Your task to perform on an android device: toggle javascript in the chrome app Image 0: 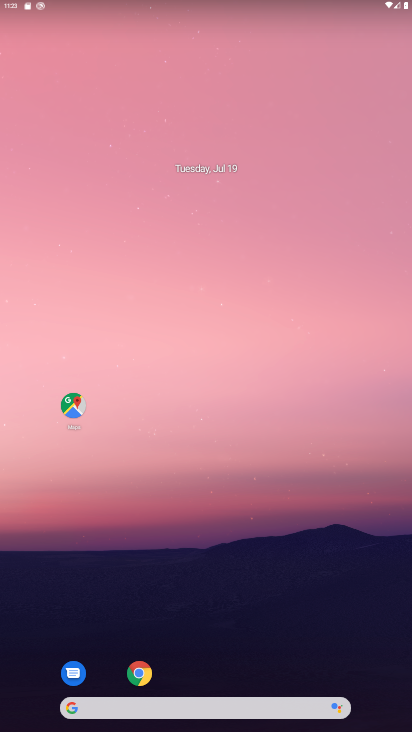
Step 0: click (142, 668)
Your task to perform on an android device: toggle javascript in the chrome app Image 1: 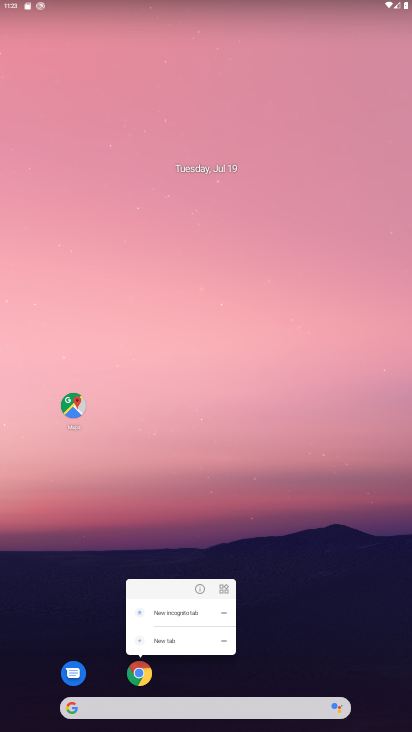
Step 1: click (141, 673)
Your task to perform on an android device: toggle javascript in the chrome app Image 2: 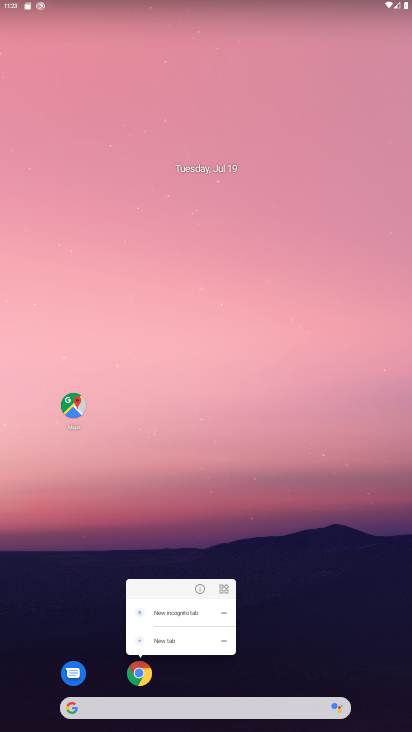
Step 2: click (141, 673)
Your task to perform on an android device: toggle javascript in the chrome app Image 3: 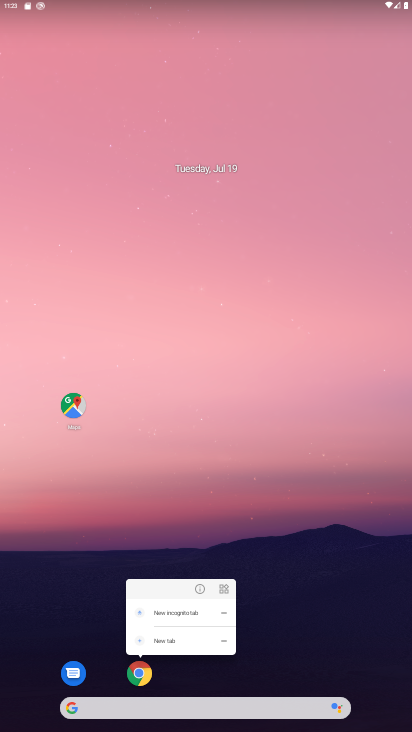
Step 3: click (140, 673)
Your task to perform on an android device: toggle javascript in the chrome app Image 4: 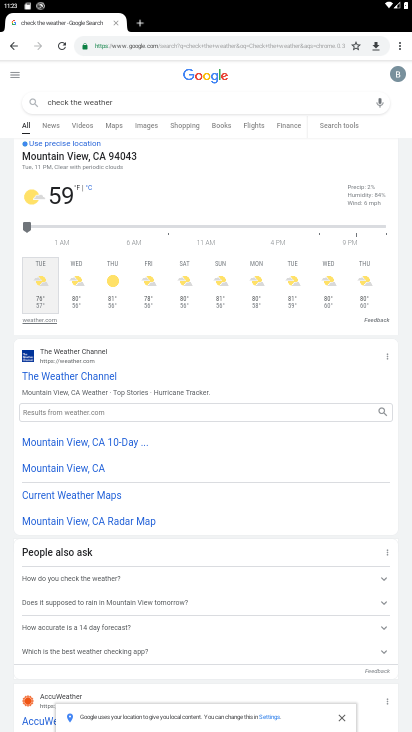
Step 4: drag from (405, 48) to (306, 286)
Your task to perform on an android device: toggle javascript in the chrome app Image 5: 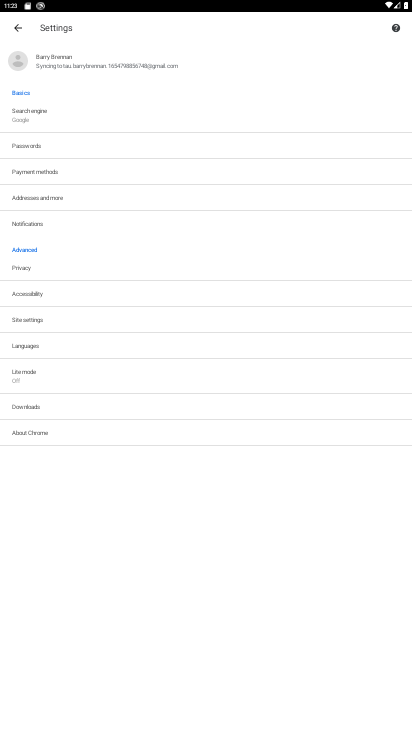
Step 5: click (69, 318)
Your task to perform on an android device: toggle javascript in the chrome app Image 6: 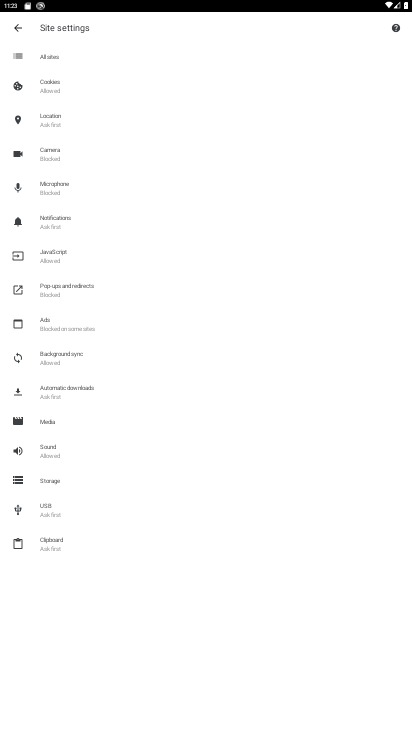
Step 6: click (101, 262)
Your task to perform on an android device: toggle javascript in the chrome app Image 7: 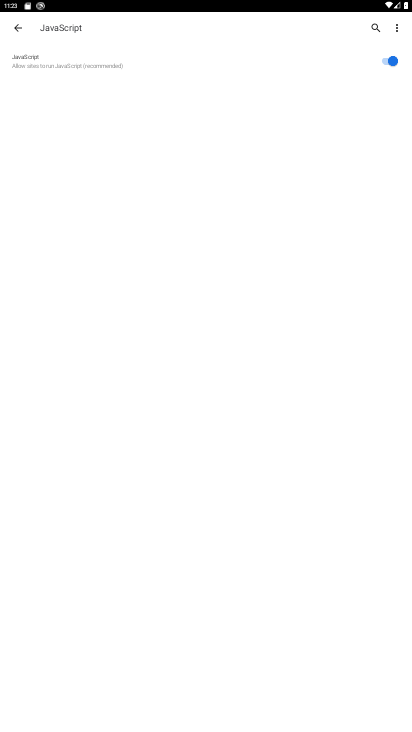
Step 7: click (381, 62)
Your task to perform on an android device: toggle javascript in the chrome app Image 8: 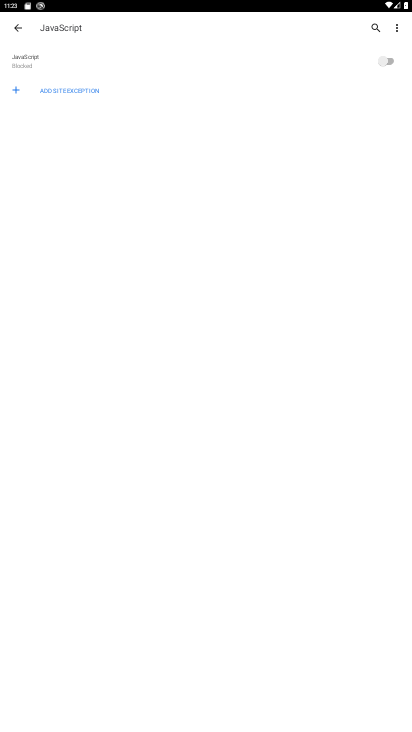
Step 8: task complete